Your task to perform on an android device: What's the weather going to be this weekend? Image 0: 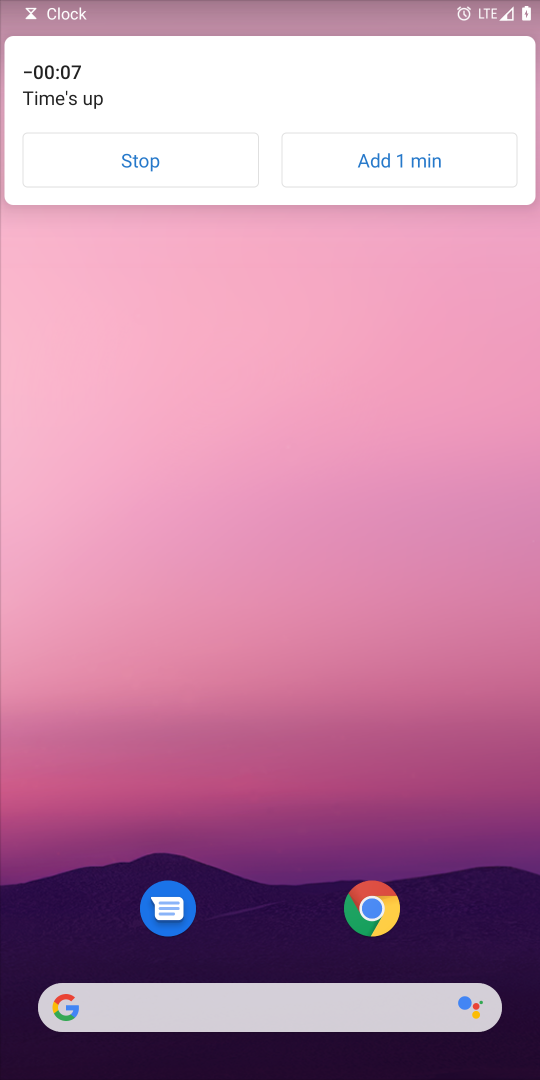
Step 0: click (142, 169)
Your task to perform on an android device: What's the weather going to be this weekend? Image 1: 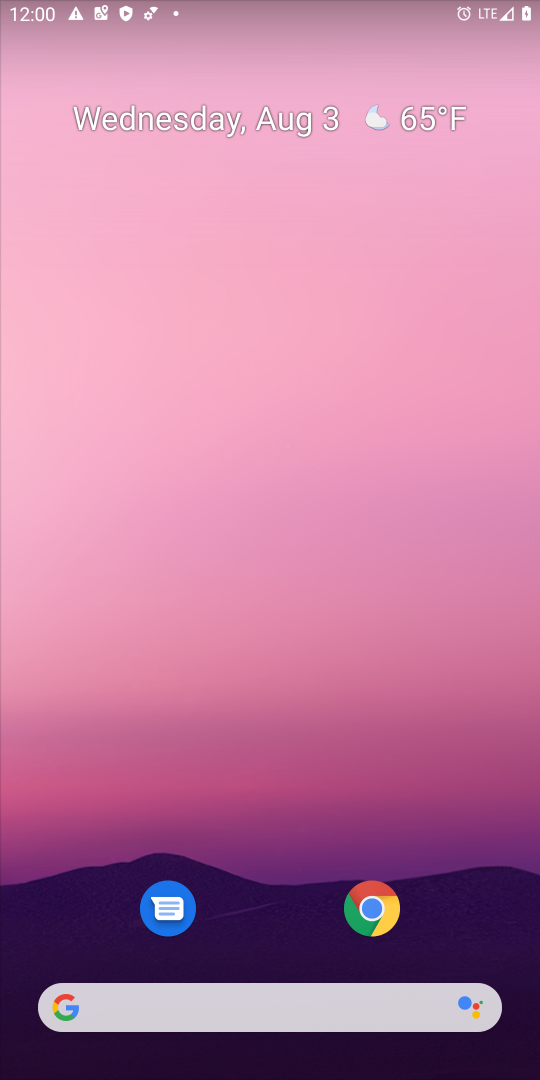
Step 1: drag from (334, 763) to (302, 4)
Your task to perform on an android device: What's the weather going to be this weekend? Image 2: 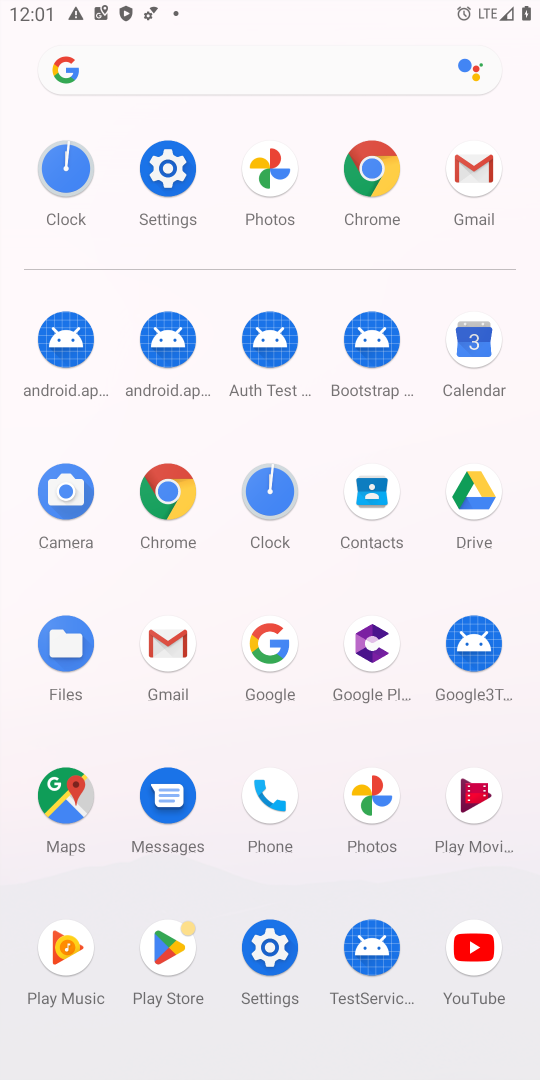
Step 2: click (176, 521)
Your task to perform on an android device: What's the weather going to be this weekend? Image 3: 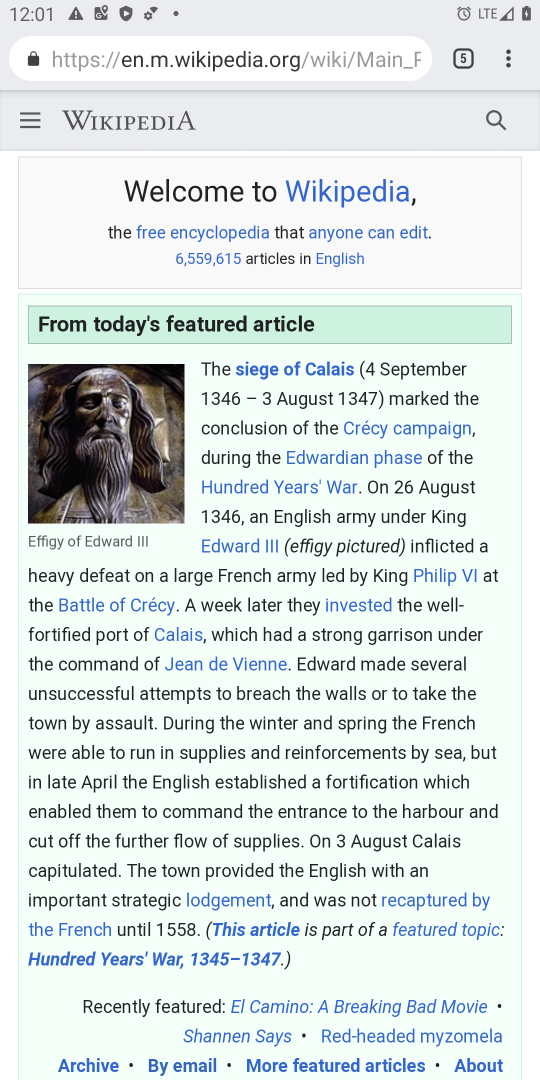
Step 3: click (464, 69)
Your task to perform on an android device: What's the weather going to be this weekend? Image 4: 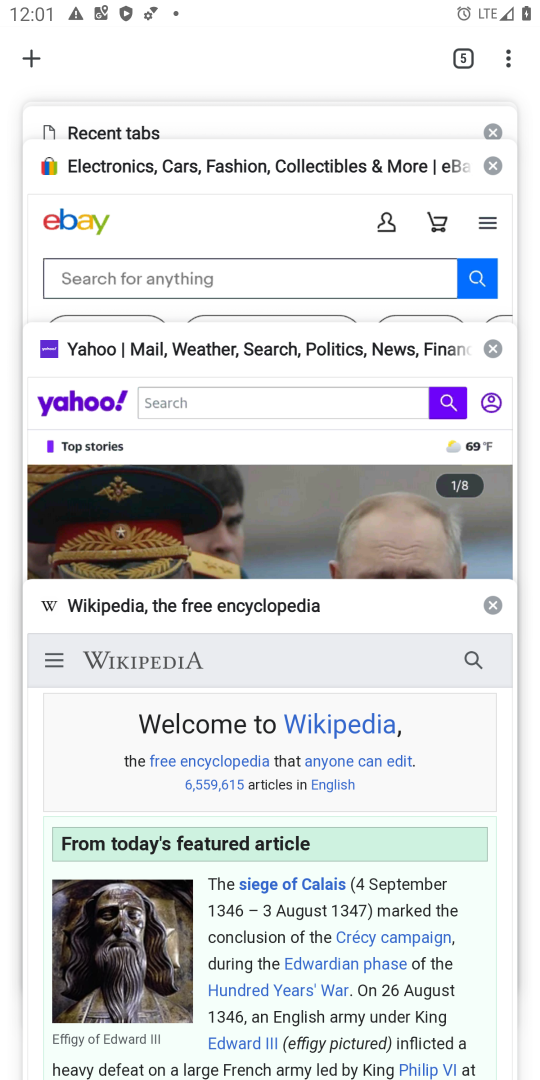
Step 4: click (25, 60)
Your task to perform on an android device: What's the weather going to be this weekend? Image 5: 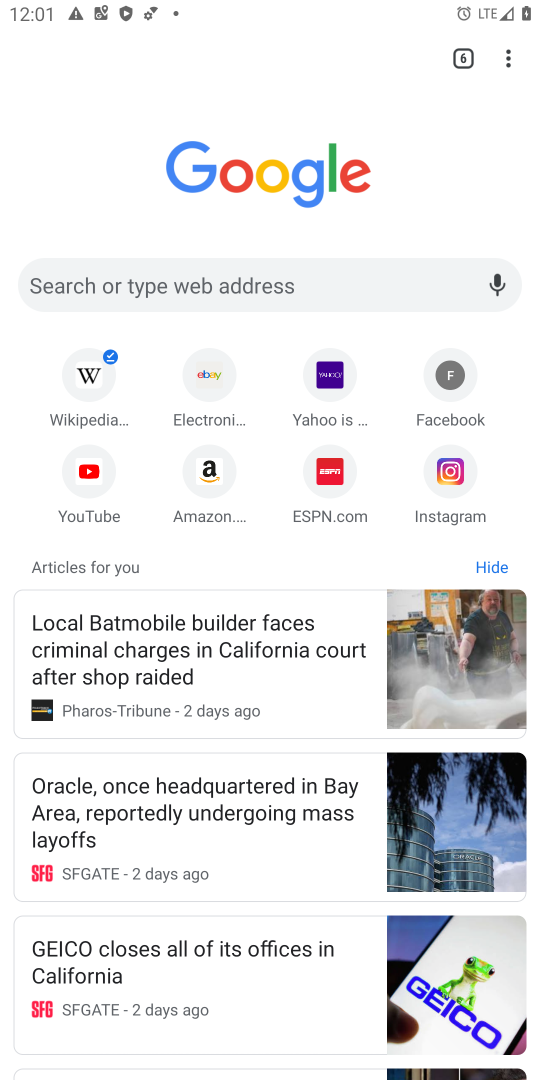
Step 5: click (234, 281)
Your task to perform on an android device: What's the weather going to be this weekend? Image 6: 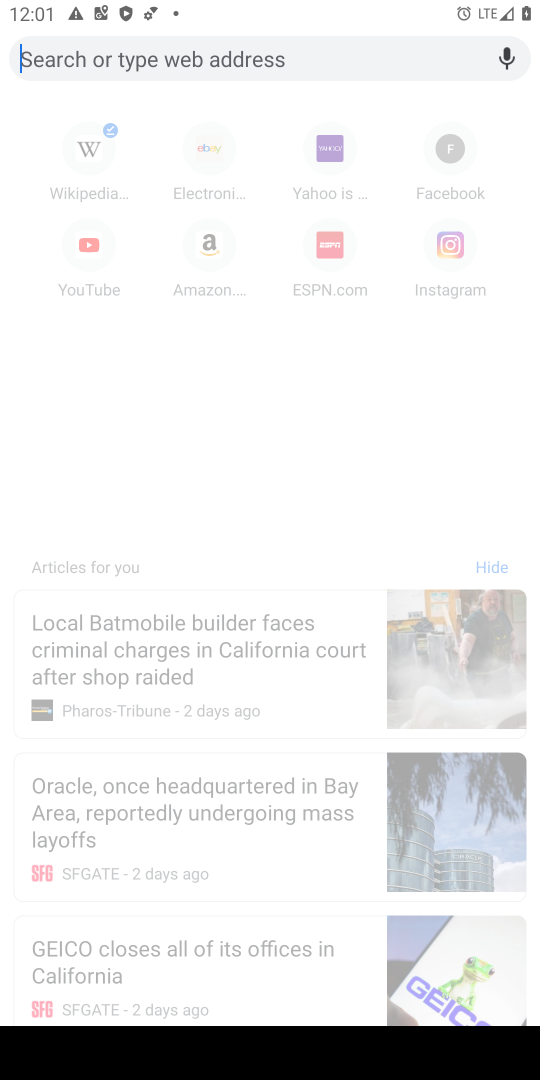
Step 6: type "weather"
Your task to perform on an android device: What's the weather going to be this weekend? Image 7: 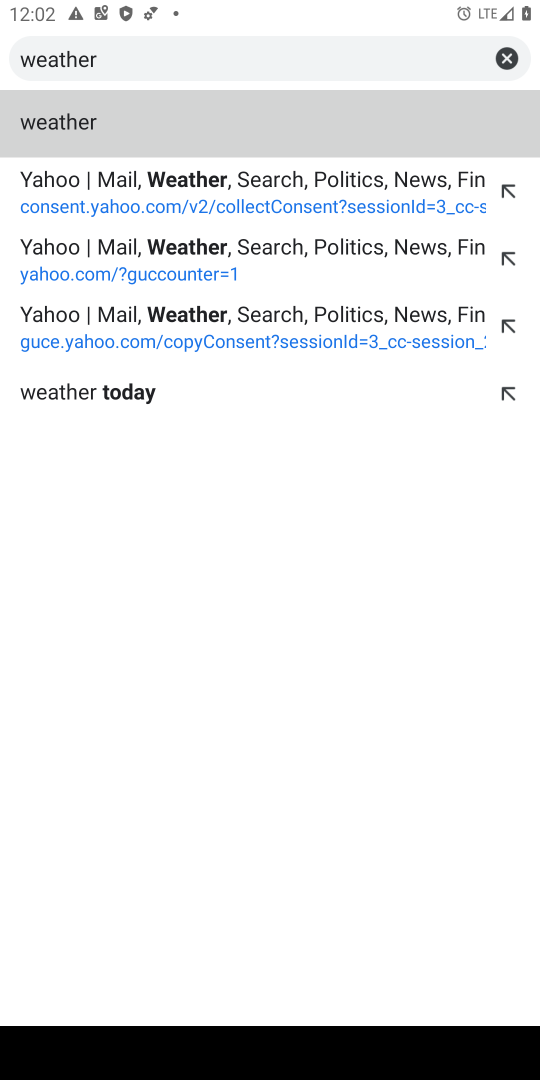
Step 7: click (223, 140)
Your task to perform on an android device: What's the weather going to be this weekend? Image 8: 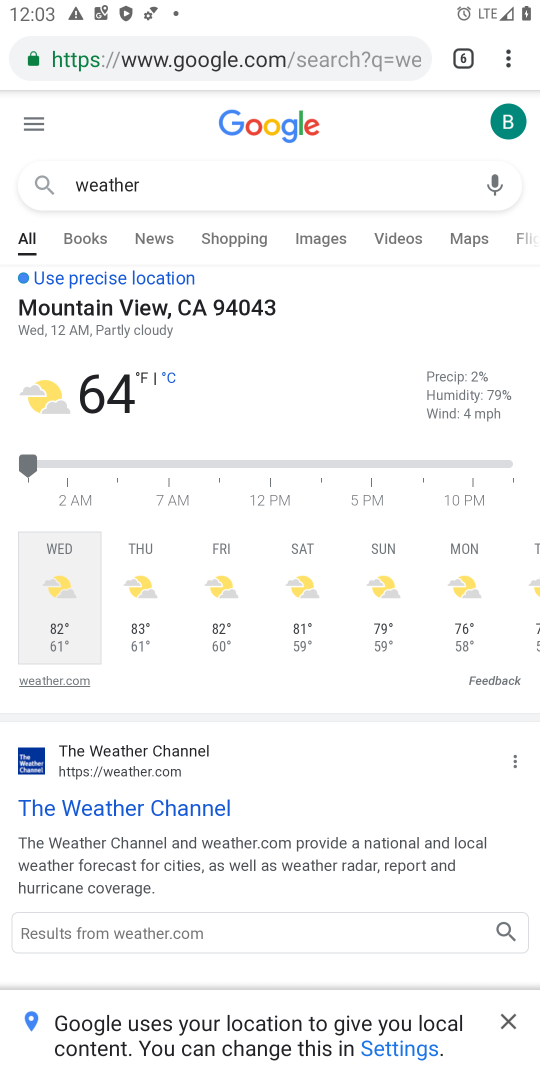
Step 8: task complete